Your task to perform on an android device: Open Yahoo.com Image 0: 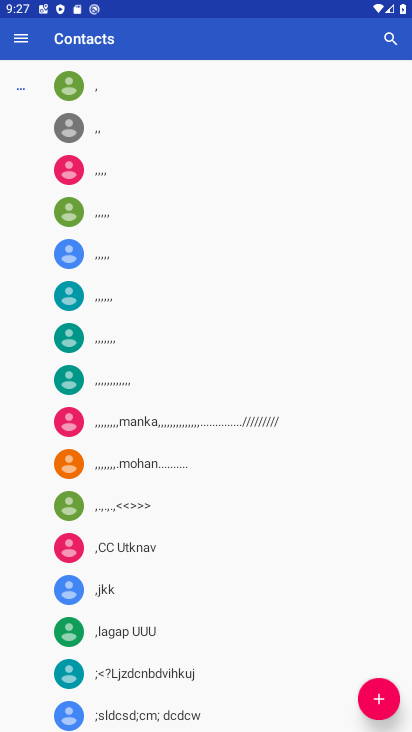
Step 0: press home button
Your task to perform on an android device: Open Yahoo.com Image 1: 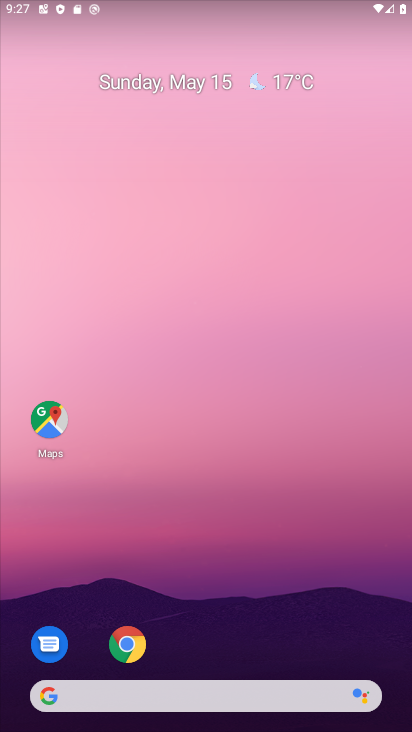
Step 1: drag from (216, 707) to (289, 180)
Your task to perform on an android device: Open Yahoo.com Image 2: 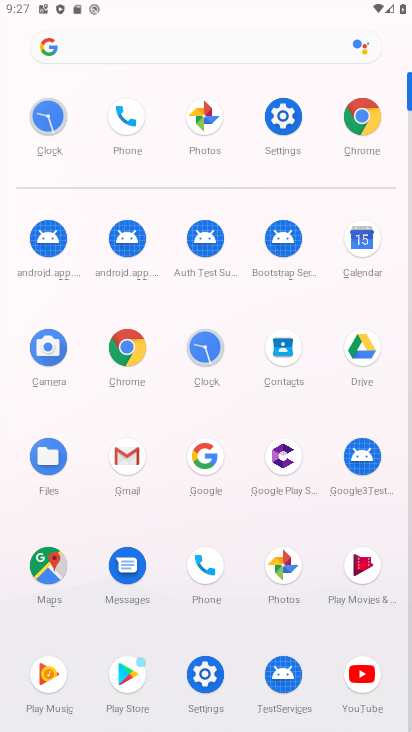
Step 2: click (365, 122)
Your task to perform on an android device: Open Yahoo.com Image 3: 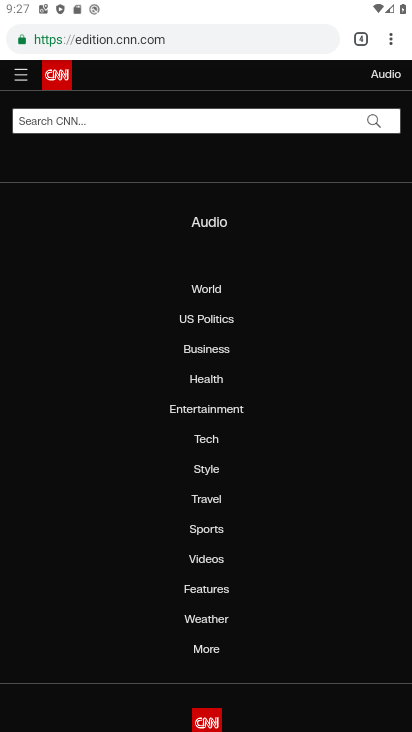
Step 3: click (191, 38)
Your task to perform on an android device: Open Yahoo.com Image 4: 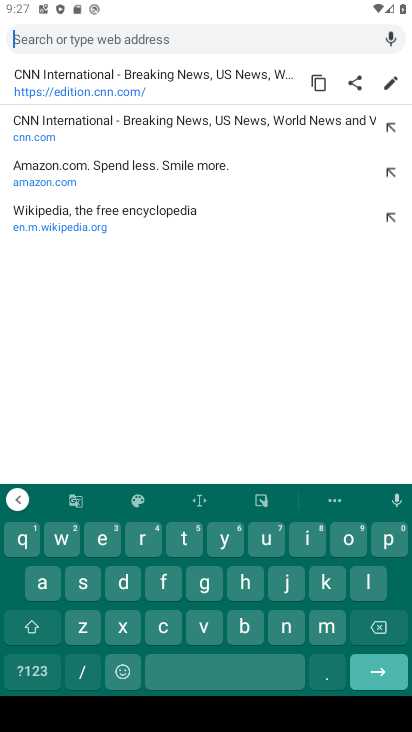
Step 4: click (222, 537)
Your task to perform on an android device: Open Yahoo.com Image 5: 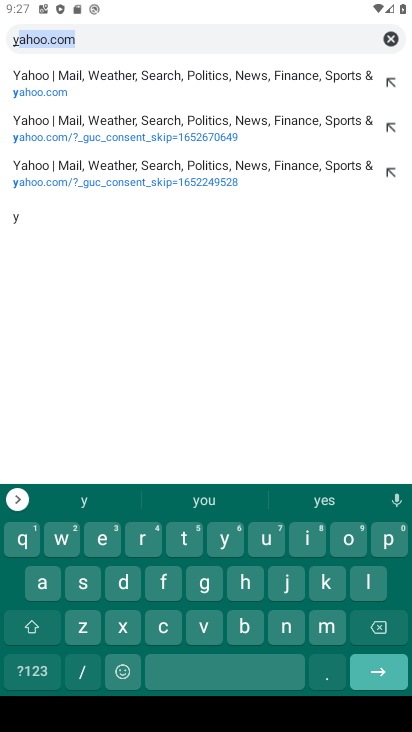
Step 5: click (34, 584)
Your task to perform on an android device: Open Yahoo.com Image 6: 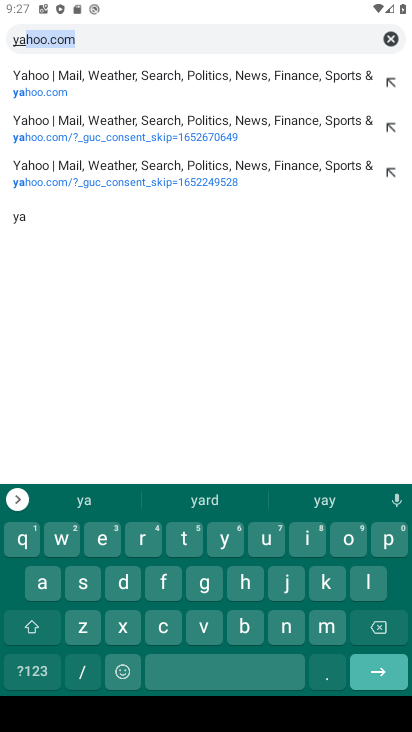
Step 6: click (92, 40)
Your task to perform on an android device: Open Yahoo.com Image 7: 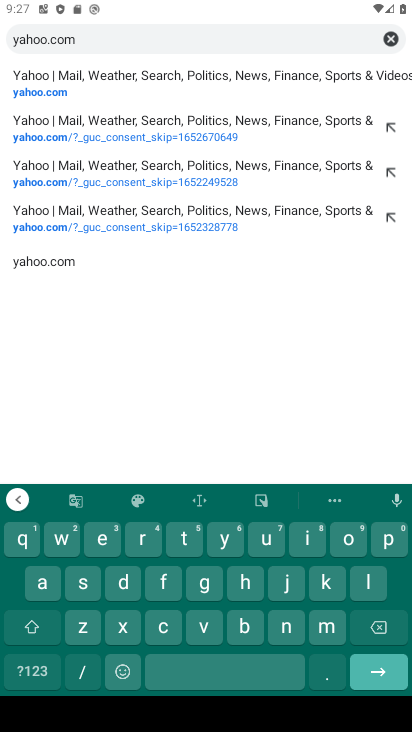
Step 7: click (376, 676)
Your task to perform on an android device: Open Yahoo.com Image 8: 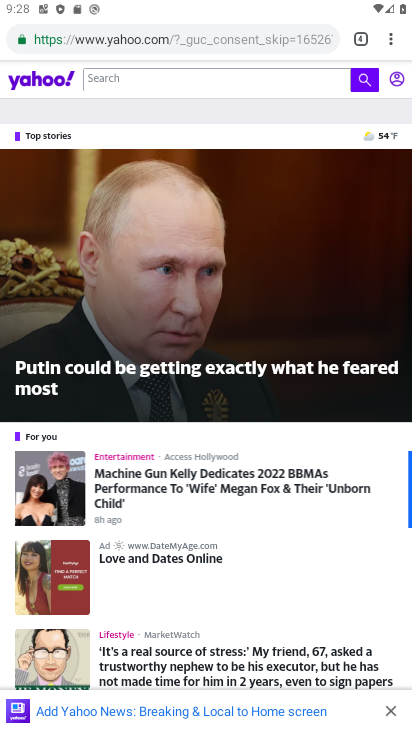
Step 8: task complete